Your task to perform on an android device: Open calendar and show me the third week of next month Image 0: 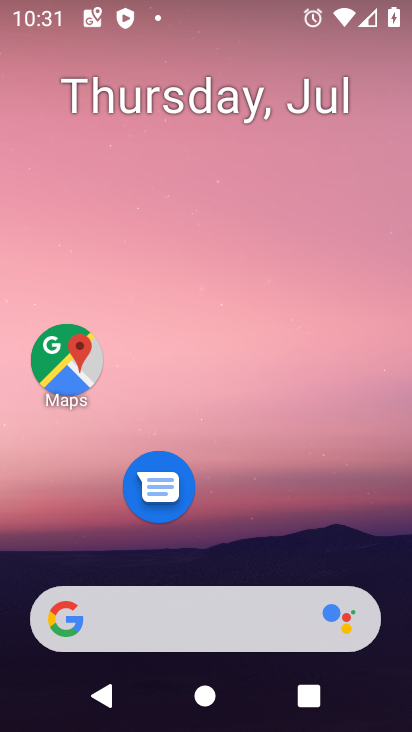
Step 0: drag from (211, 649) to (268, 211)
Your task to perform on an android device: Open calendar and show me the third week of next month Image 1: 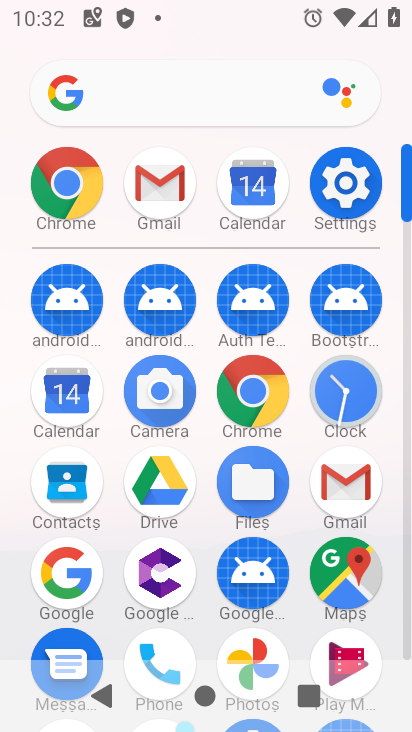
Step 1: click (82, 414)
Your task to perform on an android device: Open calendar and show me the third week of next month Image 2: 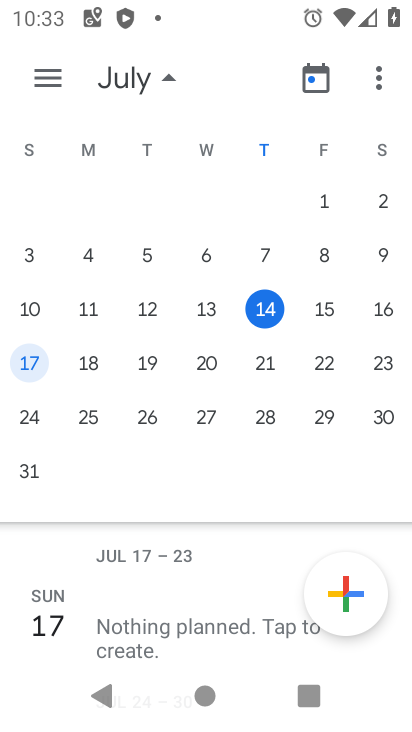
Step 2: drag from (298, 360) to (19, 359)
Your task to perform on an android device: Open calendar and show me the third week of next month Image 3: 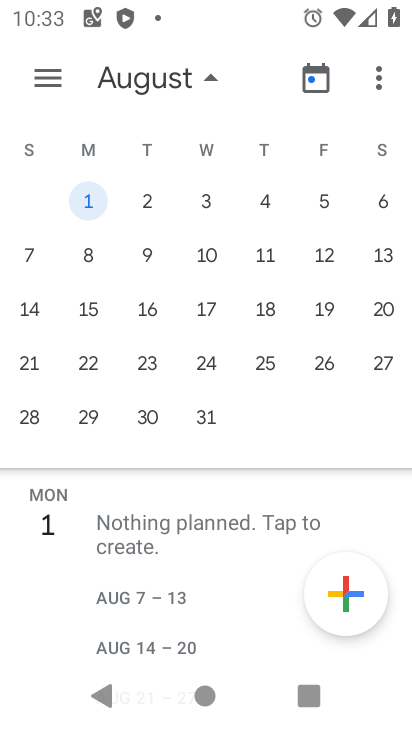
Step 3: click (97, 316)
Your task to perform on an android device: Open calendar and show me the third week of next month Image 4: 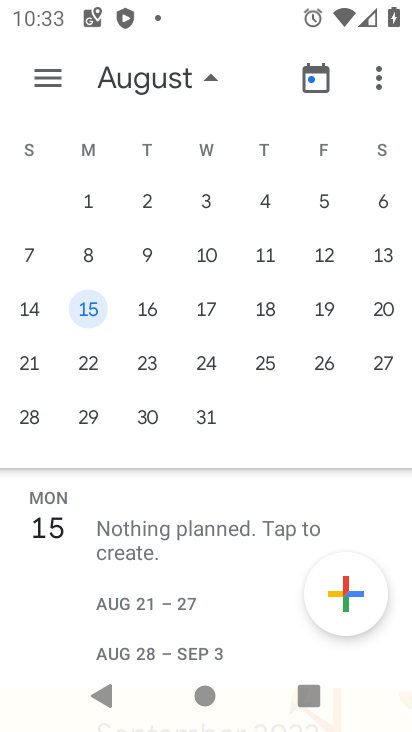
Step 4: click (83, 316)
Your task to perform on an android device: Open calendar and show me the third week of next month Image 5: 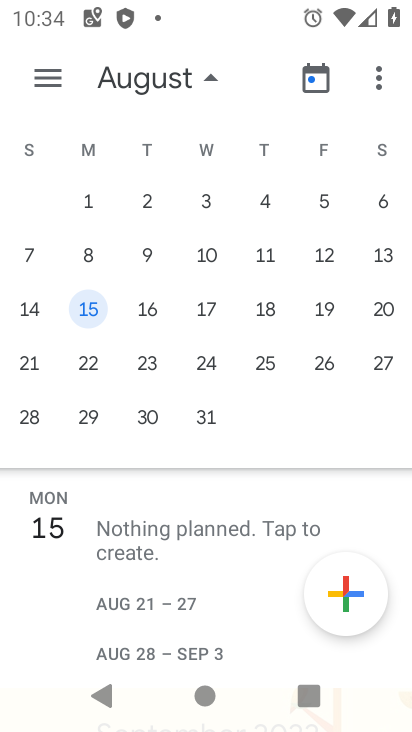
Step 5: task complete